Your task to perform on an android device: Search for Italian restaurants on Maps Image 0: 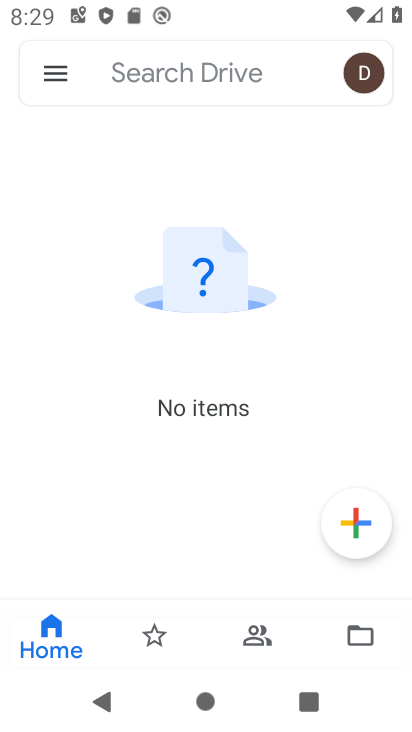
Step 0: press home button
Your task to perform on an android device: Search for Italian restaurants on Maps Image 1: 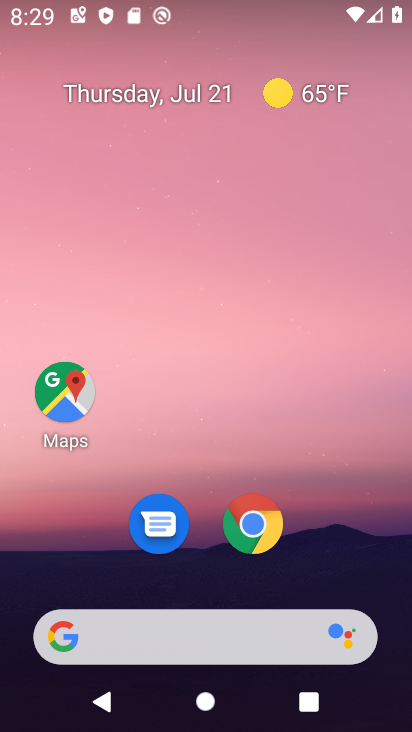
Step 1: click (83, 413)
Your task to perform on an android device: Search for Italian restaurants on Maps Image 2: 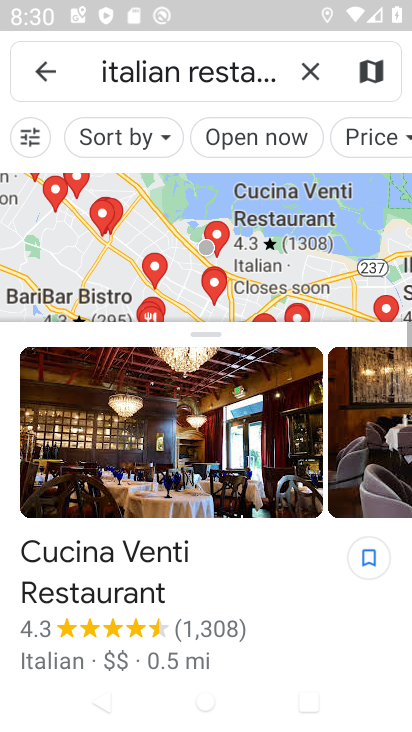
Step 2: click (315, 72)
Your task to perform on an android device: Search for Italian restaurants on Maps Image 3: 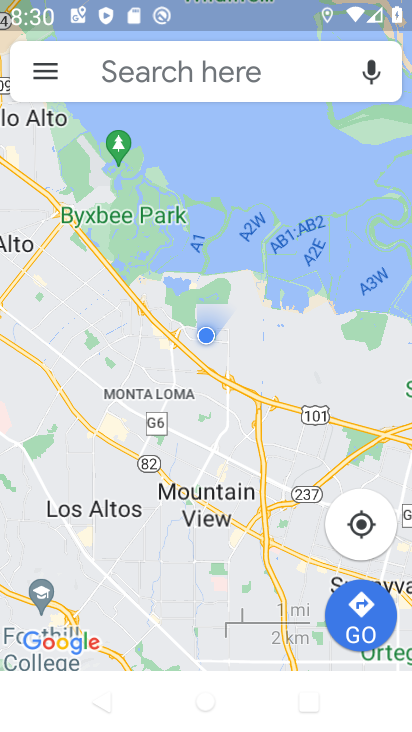
Step 3: click (232, 58)
Your task to perform on an android device: Search for Italian restaurants on Maps Image 4: 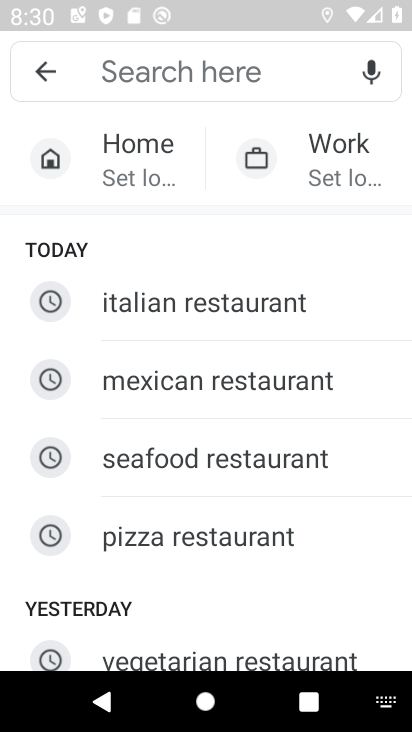
Step 4: click (179, 323)
Your task to perform on an android device: Search for Italian restaurants on Maps Image 5: 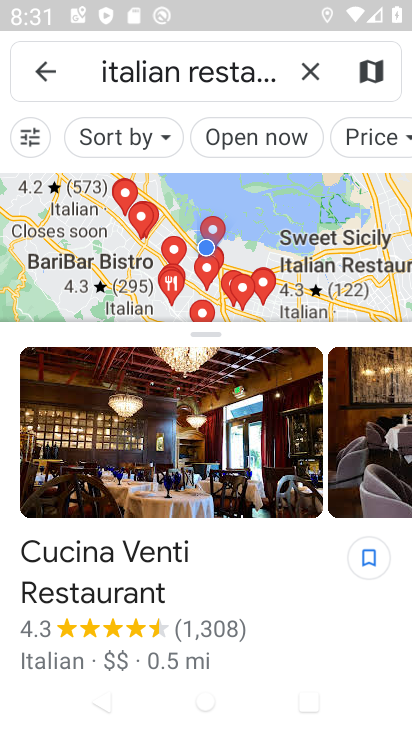
Step 5: task complete